Your task to perform on an android device: Go to accessibility settings Image 0: 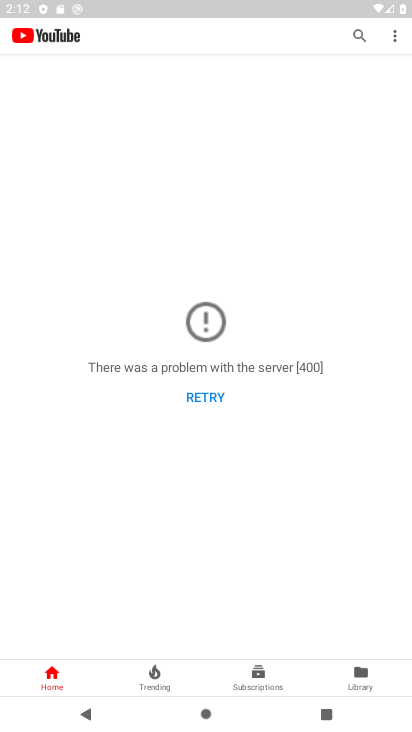
Step 0: press home button
Your task to perform on an android device: Go to accessibility settings Image 1: 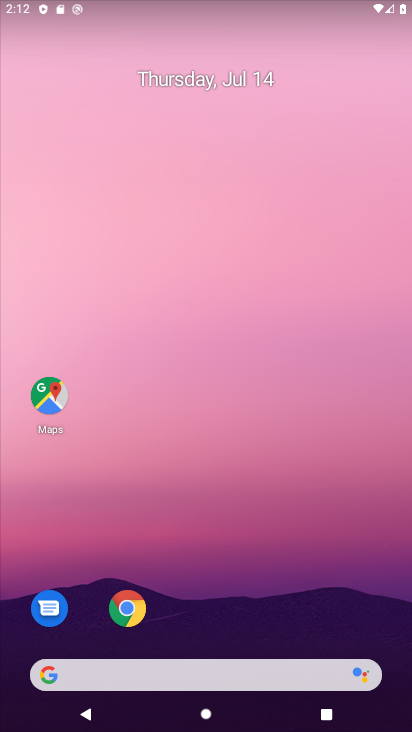
Step 1: drag from (236, 663) to (328, 174)
Your task to perform on an android device: Go to accessibility settings Image 2: 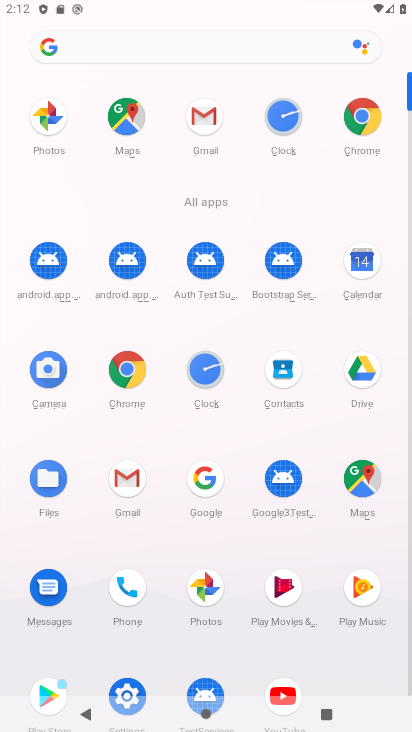
Step 2: drag from (129, 665) to (180, 401)
Your task to perform on an android device: Go to accessibility settings Image 3: 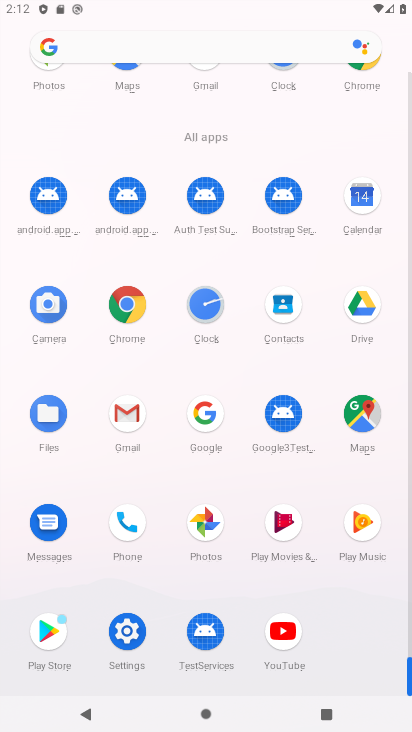
Step 3: click (140, 629)
Your task to perform on an android device: Go to accessibility settings Image 4: 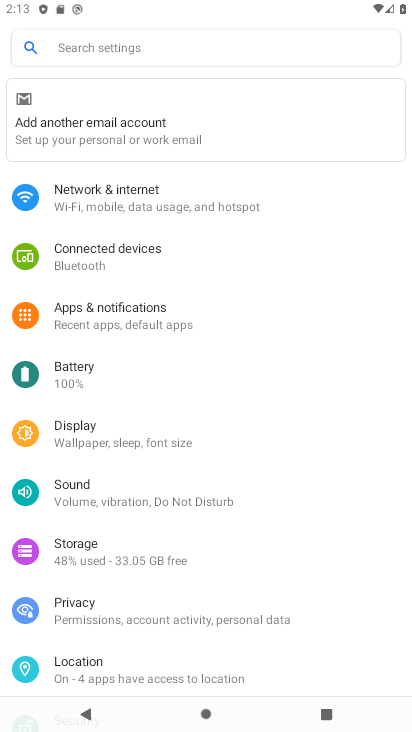
Step 4: drag from (101, 624) to (185, 242)
Your task to perform on an android device: Go to accessibility settings Image 5: 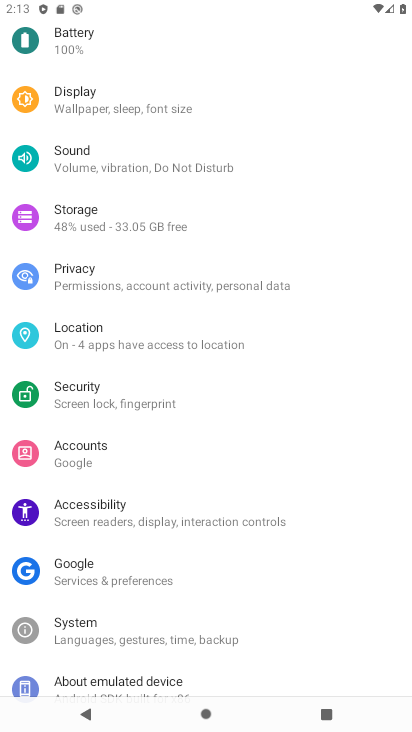
Step 5: click (130, 522)
Your task to perform on an android device: Go to accessibility settings Image 6: 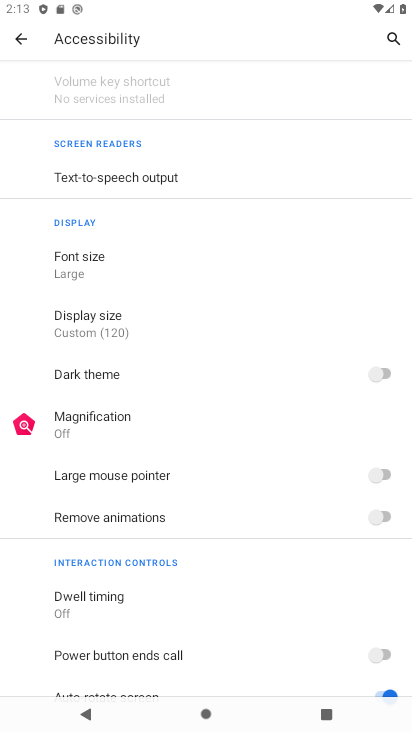
Step 6: task complete